Your task to perform on an android device: See recent photos Image 0: 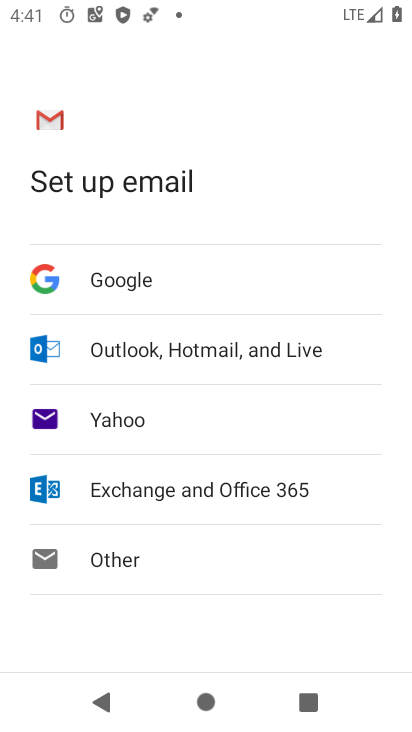
Step 0: press home button
Your task to perform on an android device: See recent photos Image 1: 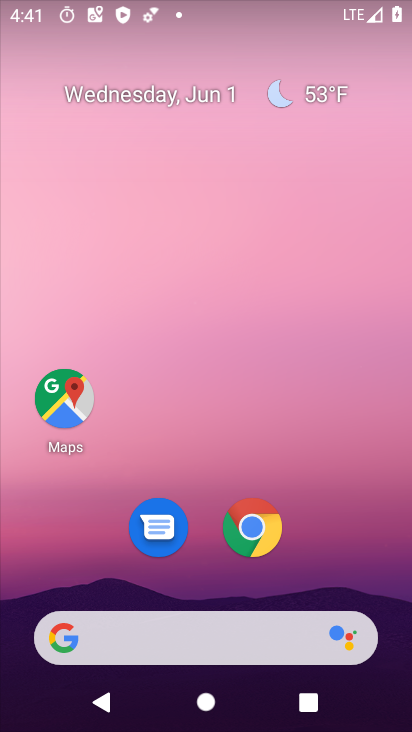
Step 1: drag from (295, 570) to (359, 43)
Your task to perform on an android device: See recent photos Image 2: 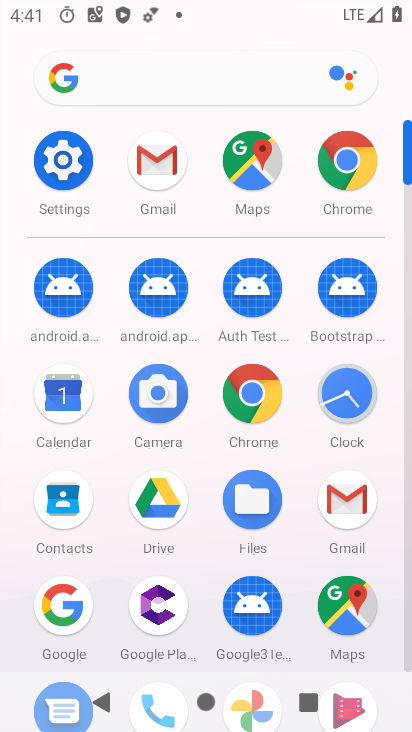
Step 2: drag from (291, 355) to (303, 64)
Your task to perform on an android device: See recent photos Image 3: 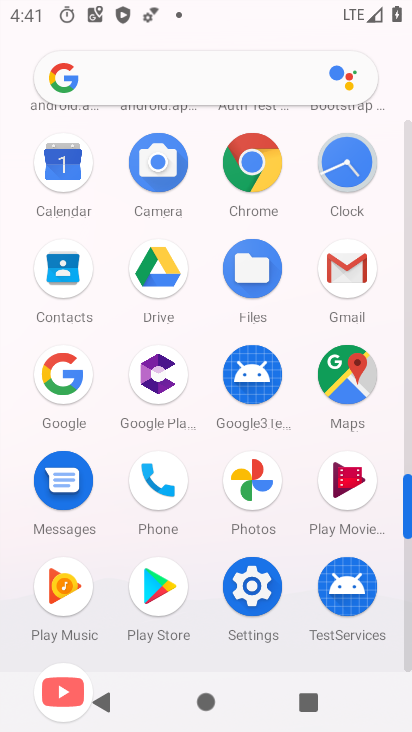
Step 3: click (264, 480)
Your task to perform on an android device: See recent photos Image 4: 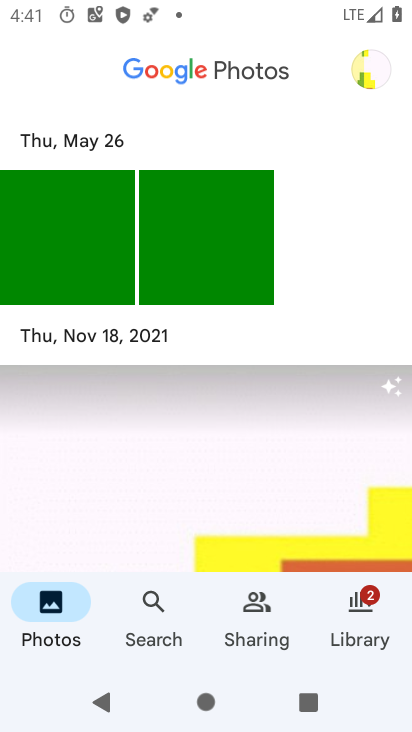
Step 4: click (34, 621)
Your task to perform on an android device: See recent photos Image 5: 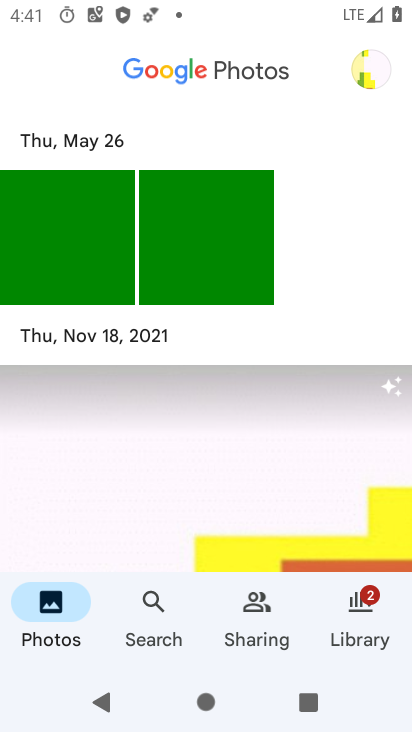
Step 5: task complete